Your task to perform on an android device: toggle javascript in the chrome app Image 0: 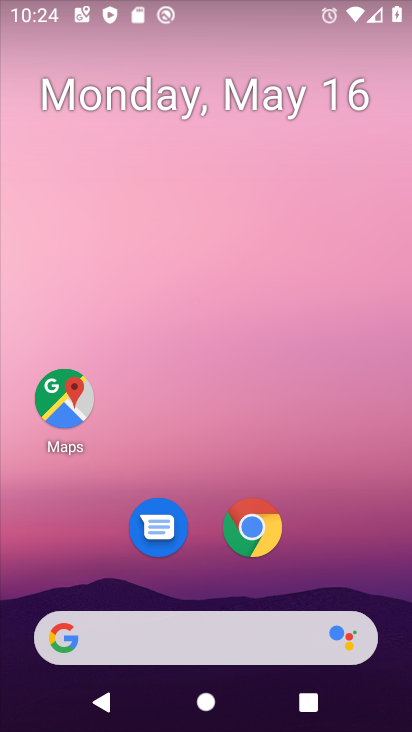
Step 0: click (250, 526)
Your task to perform on an android device: toggle javascript in the chrome app Image 1: 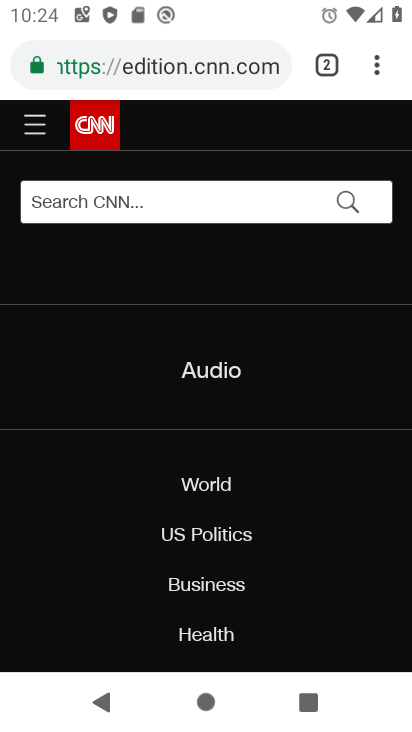
Step 1: click (373, 68)
Your task to perform on an android device: toggle javascript in the chrome app Image 2: 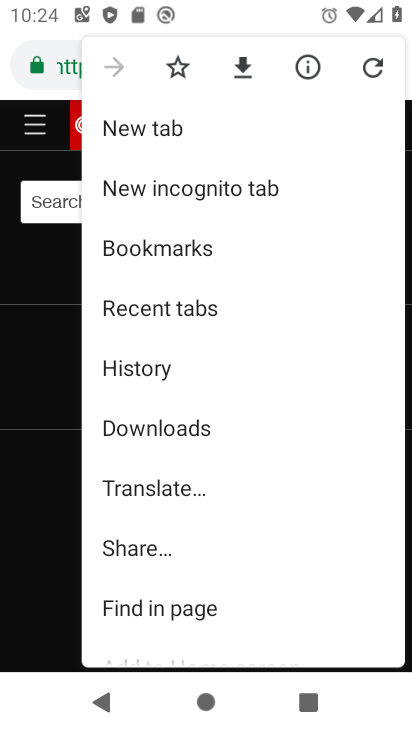
Step 2: drag from (253, 560) to (253, 125)
Your task to perform on an android device: toggle javascript in the chrome app Image 3: 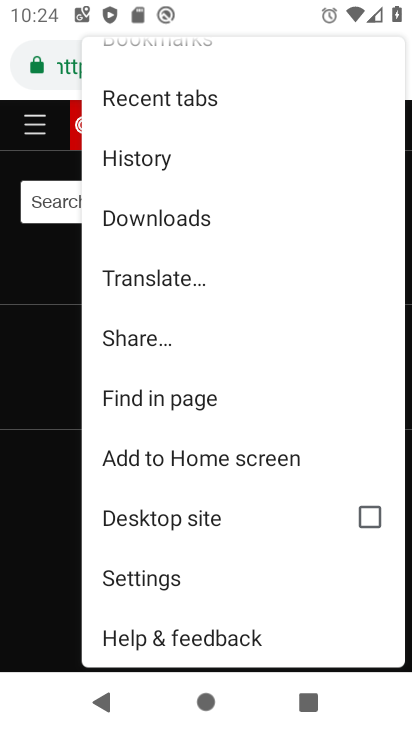
Step 3: click (142, 577)
Your task to perform on an android device: toggle javascript in the chrome app Image 4: 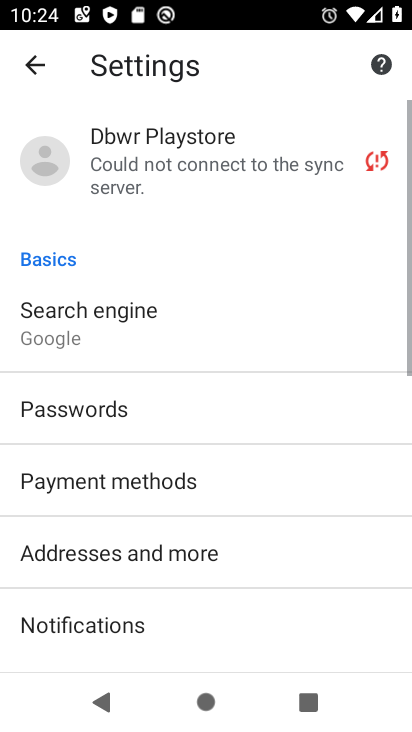
Step 4: drag from (154, 575) to (159, 135)
Your task to perform on an android device: toggle javascript in the chrome app Image 5: 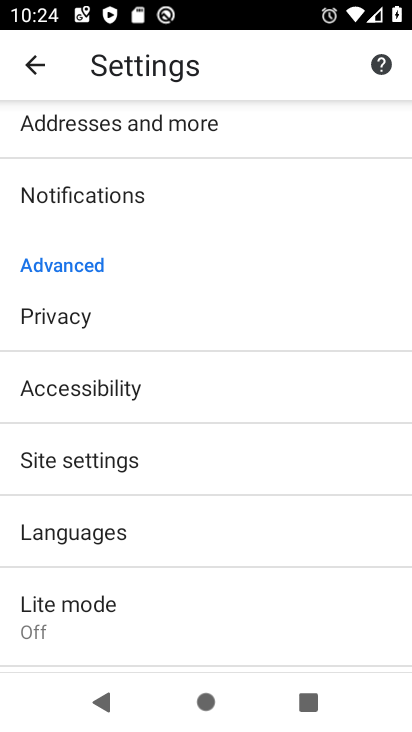
Step 5: click (87, 468)
Your task to perform on an android device: toggle javascript in the chrome app Image 6: 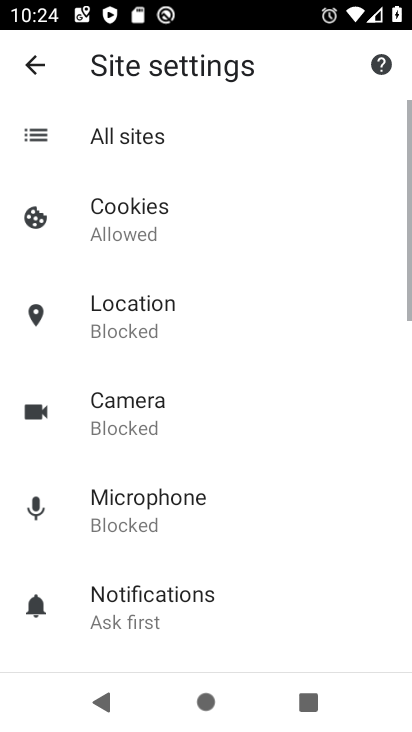
Step 6: drag from (216, 542) to (227, 184)
Your task to perform on an android device: toggle javascript in the chrome app Image 7: 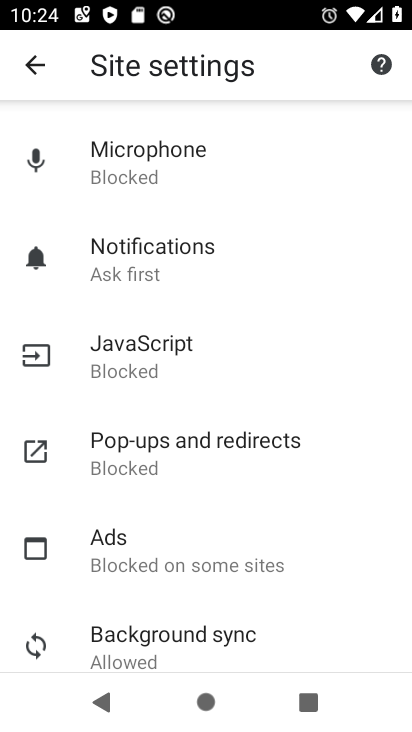
Step 7: click (129, 358)
Your task to perform on an android device: toggle javascript in the chrome app Image 8: 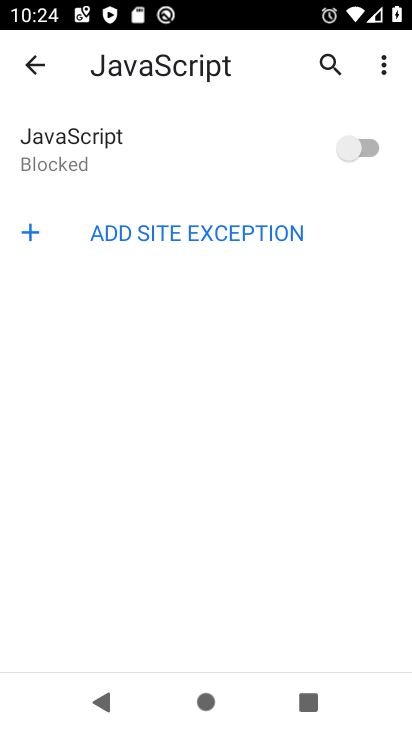
Step 8: click (340, 143)
Your task to perform on an android device: toggle javascript in the chrome app Image 9: 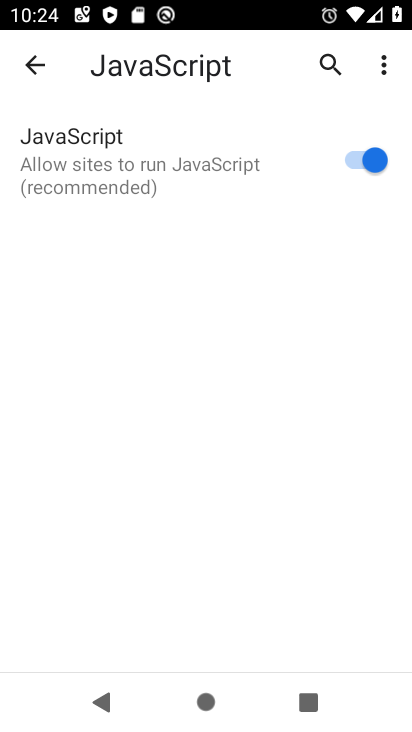
Step 9: task complete